Your task to perform on an android device: empty trash in google photos Image 0: 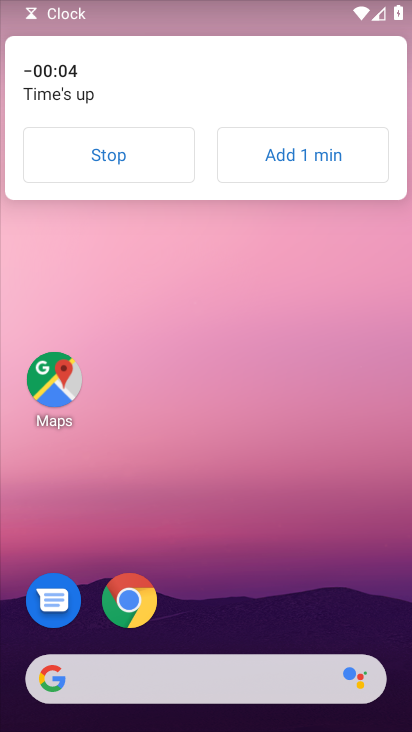
Step 0: press home button
Your task to perform on an android device: empty trash in google photos Image 1: 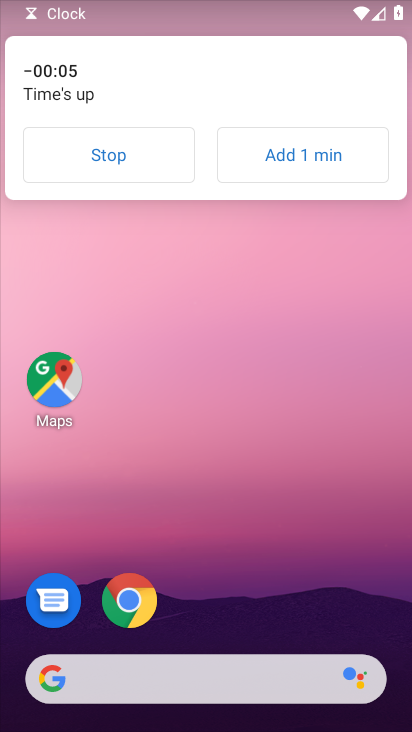
Step 1: click (108, 150)
Your task to perform on an android device: empty trash in google photos Image 2: 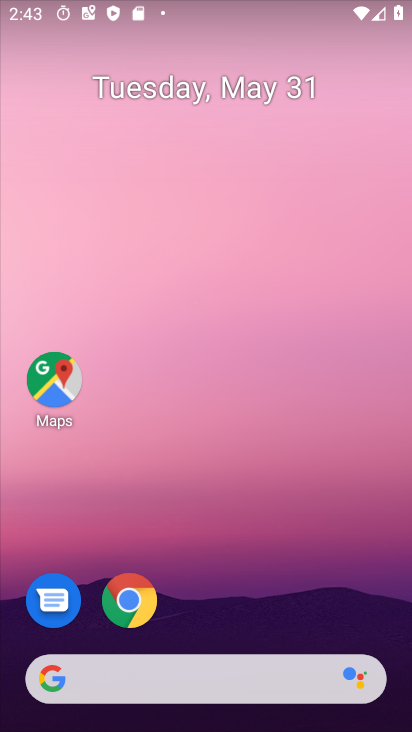
Step 2: drag from (229, 635) to (239, 148)
Your task to perform on an android device: empty trash in google photos Image 3: 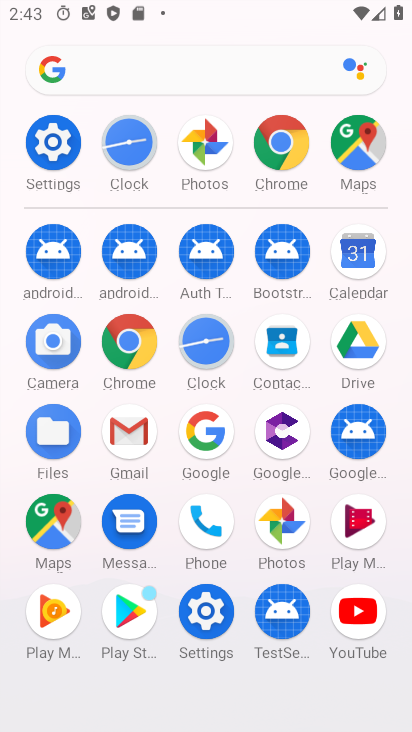
Step 3: click (283, 512)
Your task to perform on an android device: empty trash in google photos Image 4: 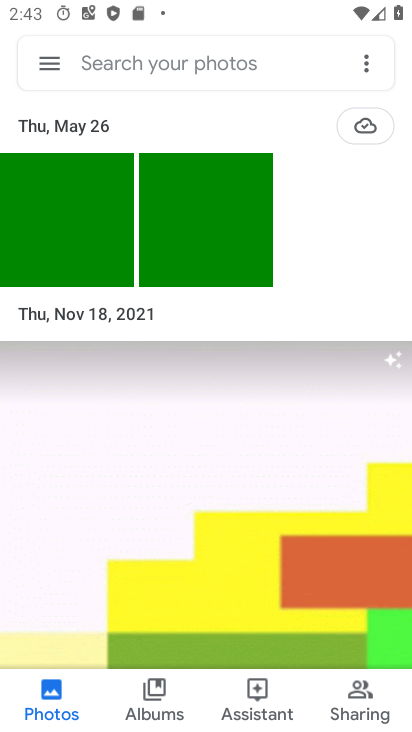
Step 4: click (43, 62)
Your task to perform on an android device: empty trash in google photos Image 5: 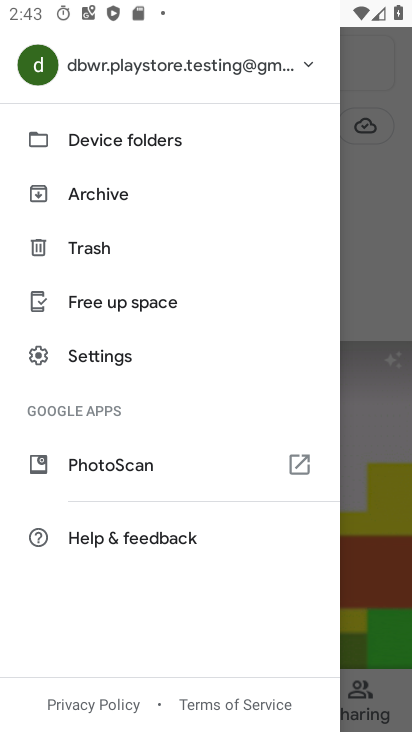
Step 5: click (94, 245)
Your task to perform on an android device: empty trash in google photos Image 6: 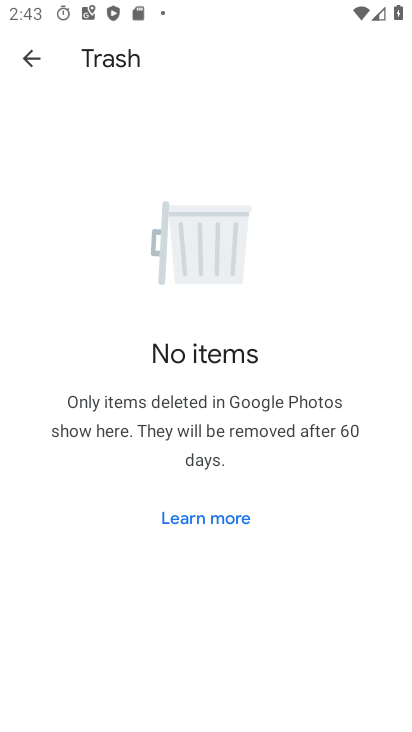
Step 6: task complete